Your task to perform on an android device: Open Maps and search for coffee Image 0: 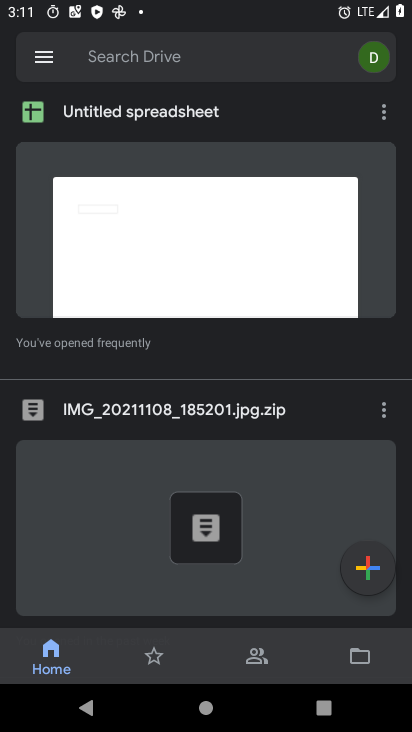
Step 0: press home button
Your task to perform on an android device: Open Maps and search for coffee Image 1: 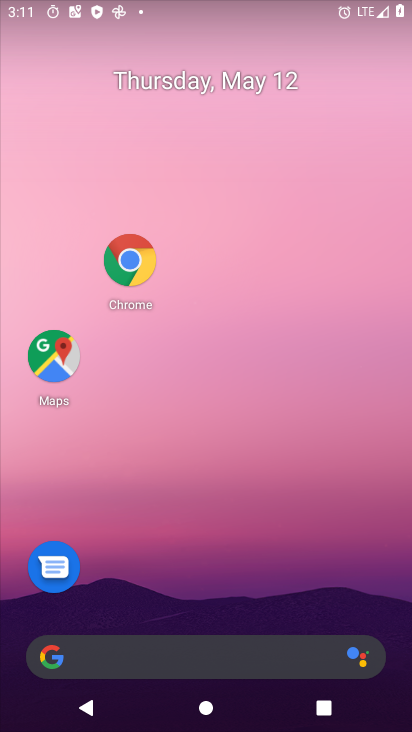
Step 1: click (44, 350)
Your task to perform on an android device: Open Maps and search for coffee Image 2: 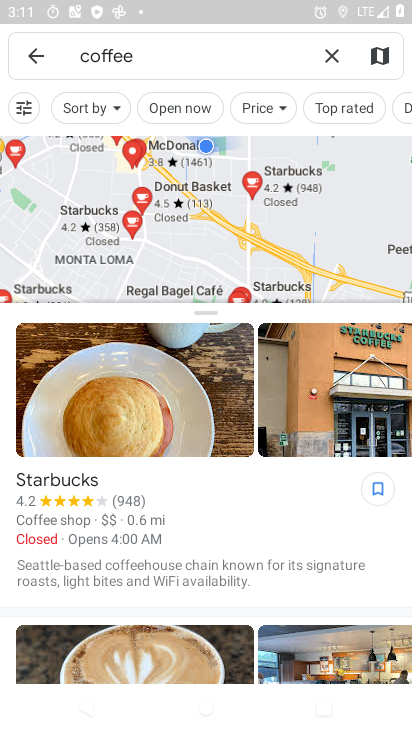
Step 2: task complete